Your task to perform on an android device: open a new tab in the chrome app Image 0: 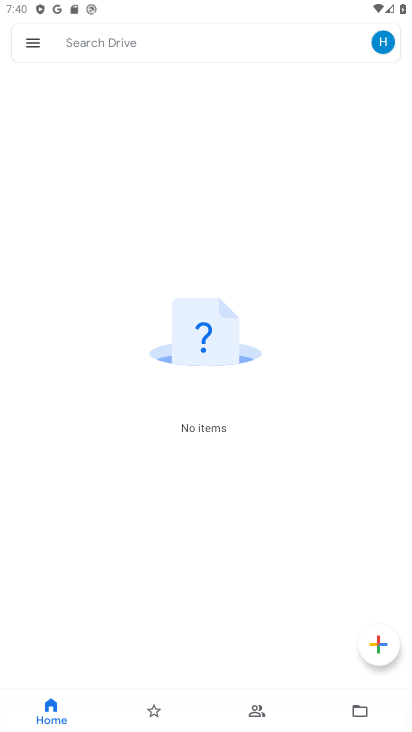
Step 0: press home button
Your task to perform on an android device: open a new tab in the chrome app Image 1: 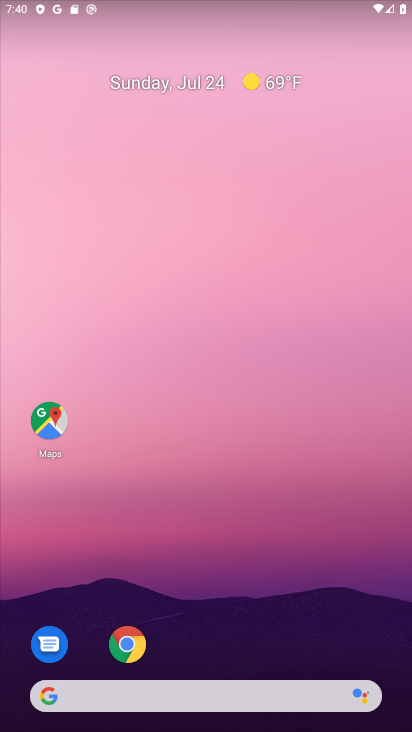
Step 1: click (119, 647)
Your task to perform on an android device: open a new tab in the chrome app Image 2: 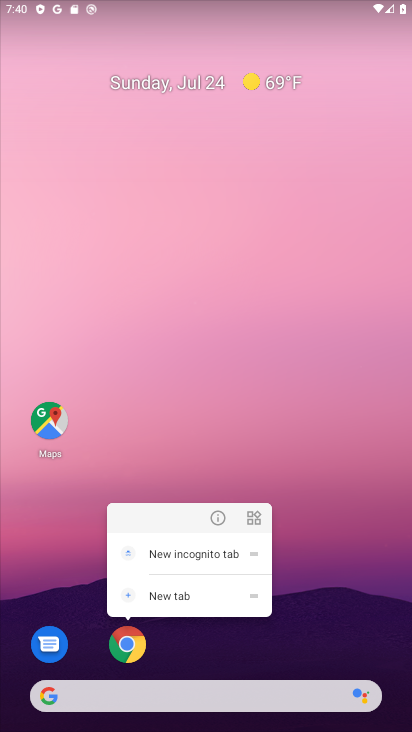
Step 2: click (119, 647)
Your task to perform on an android device: open a new tab in the chrome app Image 3: 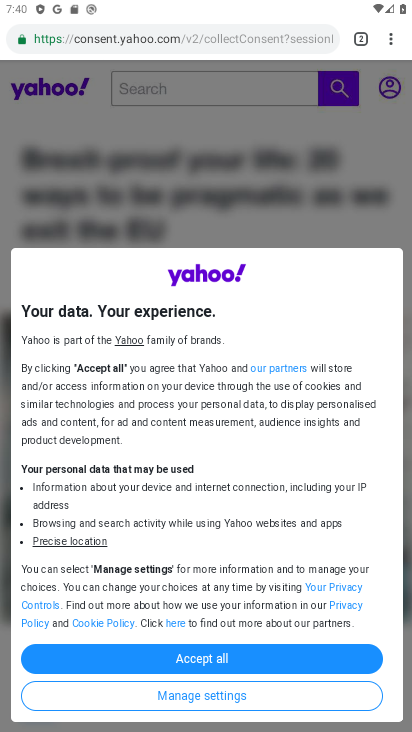
Step 3: click (385, 33)
Your task to perform on an android device: open a new tab in the chrome app Image 4: 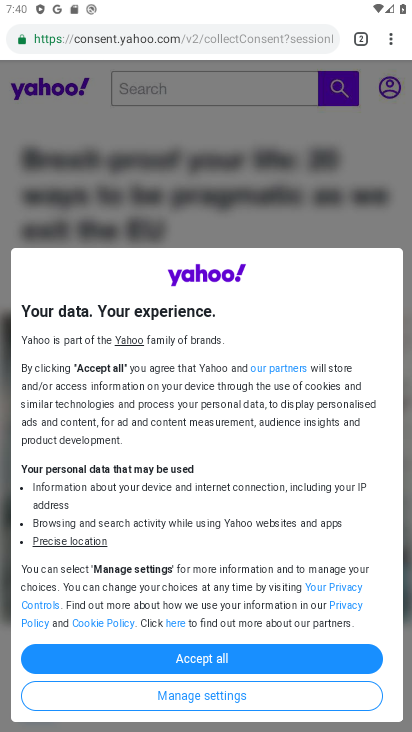
Step 4: click (392, 43)
Your task to perform on an android device: open a new tab in the chrome app Image 5: 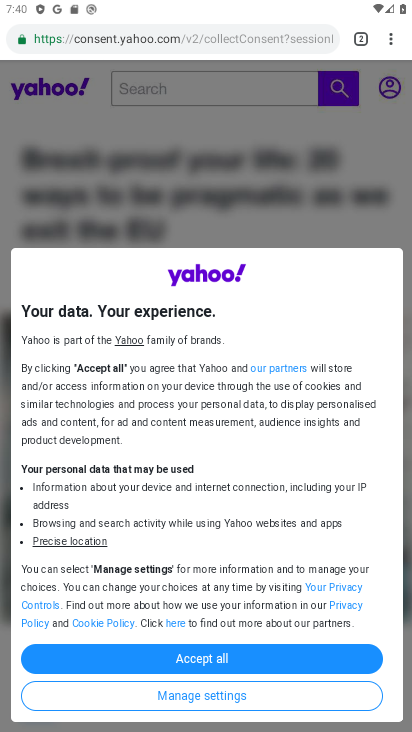
Step 5: click (394, 40)
Your task to perform on an android device: open a new tab in the chrome app Image 6: 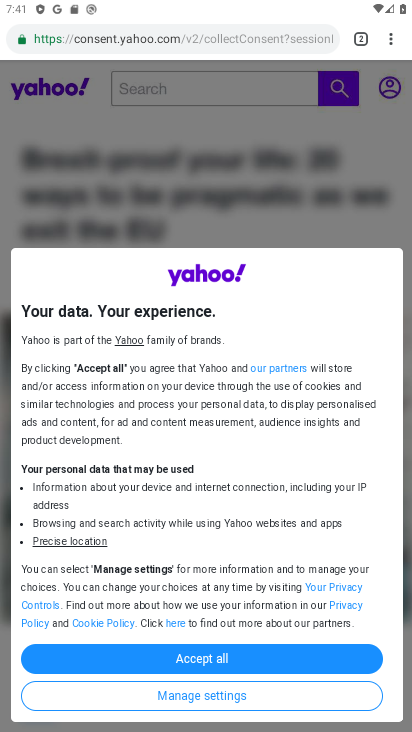
Step 6: click (391, 33)
Your task to perform on an android device: open a new tab in the chrome app Image 7: 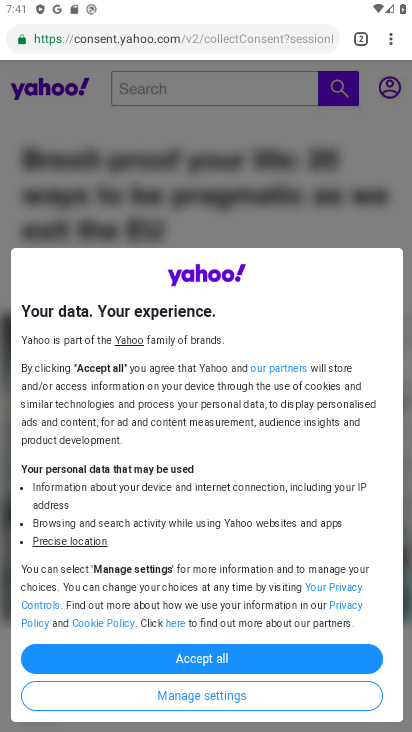
Step 7: click (385, 37)
Your task to perform on an android device: open a new tab in the chrome app Image 8: 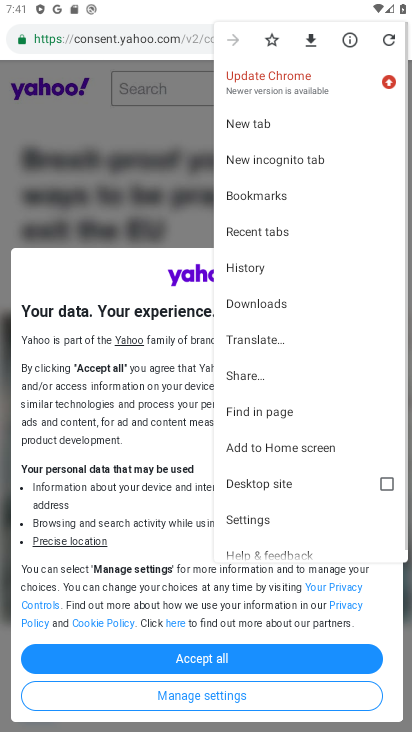
Step 8: click (261, 117)
Your task to perform on an android device: open a new tab in the chrome app Image 9: 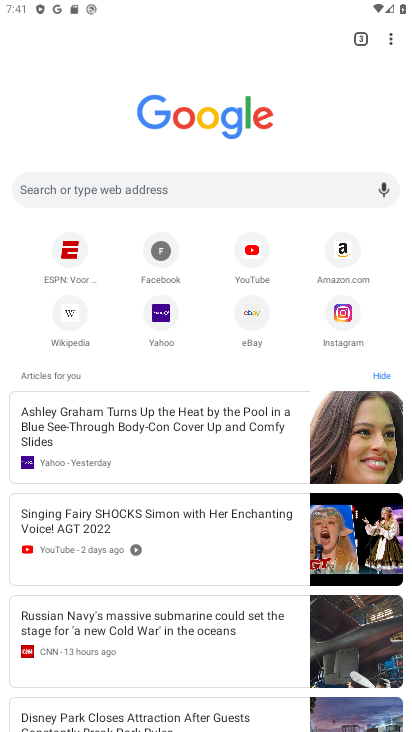
Step 9: task complete